Your task to perform on an android device: check the backup settings in the google photos Image 0: 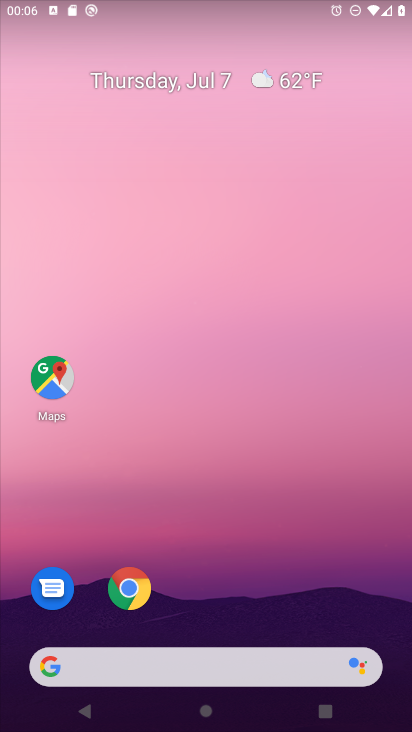
Step 0: drag from (377, 621) to (347, 84)
Your task to perform on an android device: check the backup settings in the google photos Image 1: 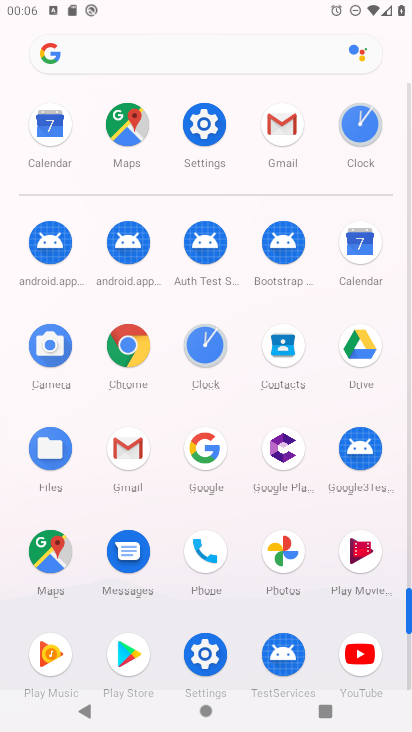
Step 1: click (282, 549)
Your task to perform on an android device: check the backup settings in the google photos Image 2: 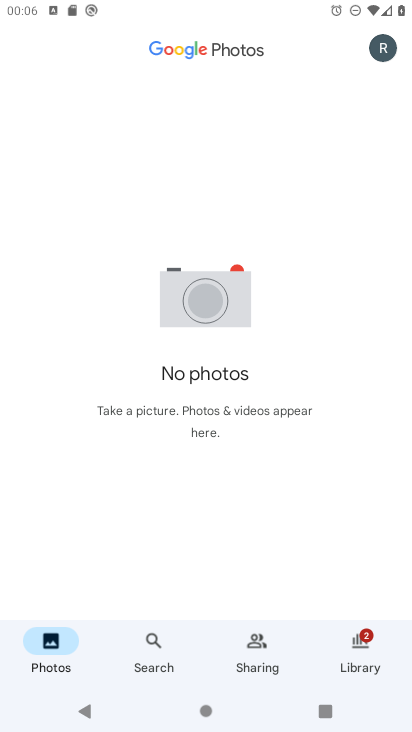
Step 2: drag from (229, 155) to (206, 426)
Your task to perform on an android device: check the backup settings in the google photos Image 3: 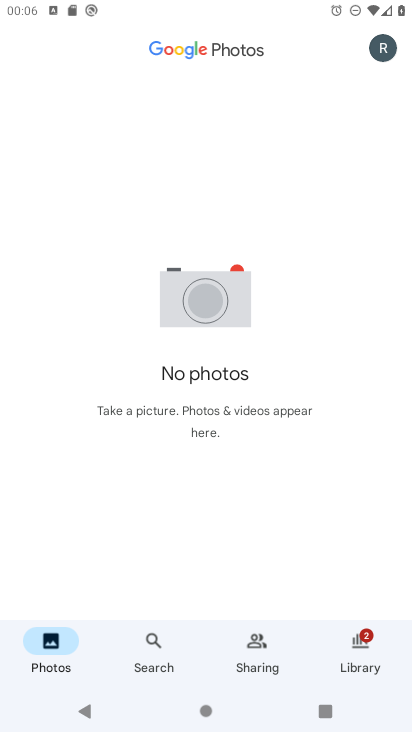
Step 3: click (381, 50)
Your task to perform on an android device: check the backup settings in the google photos Image 4: 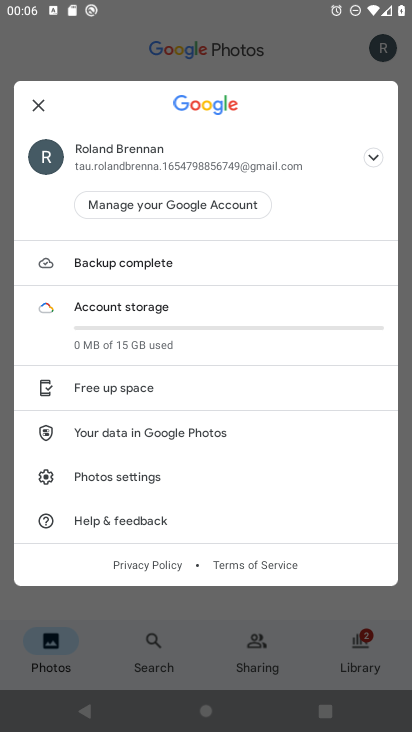
Step 4: click (108, 476)
Your task to perform on an android device: check the backup settings in the google photos Image 5: 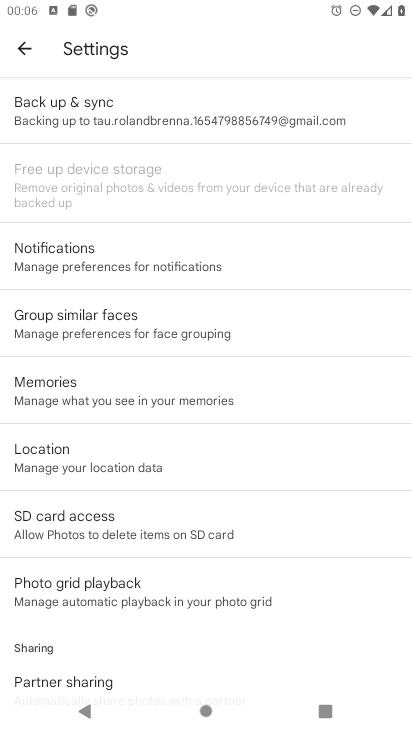
Step 5: click (73, 109)
Your task to perform on an android device: check the backup settings in the google photos Image 6: 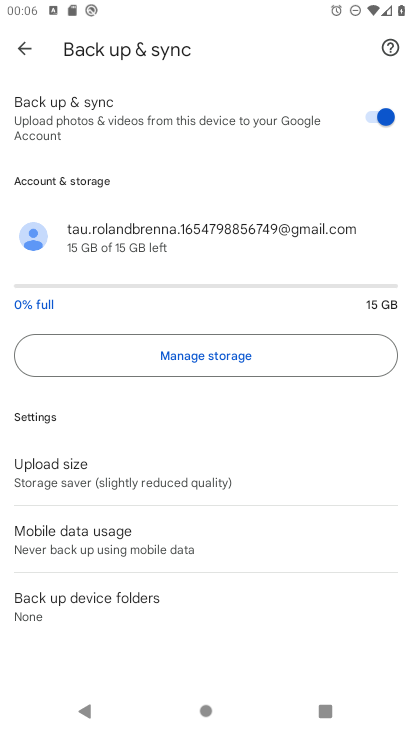
Step 6: task complete